Your task to perform on an android device: Open calendar and show me the fourth week of next month Image 0: 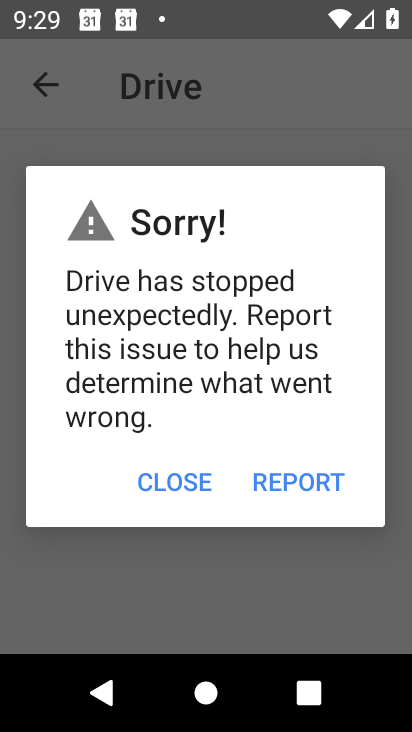
Step 0: press home button
Your task to perform on an android device: Open calendar and show me the fourth week of next month Image 1: 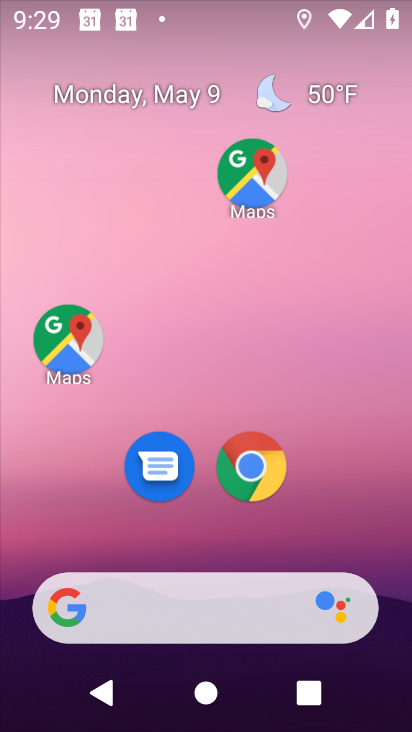
Step 1: drag from (336, 536) to (294, 4)
Your task to perform on an android device: Open calendar and show me the fourth week of next month Image 2: 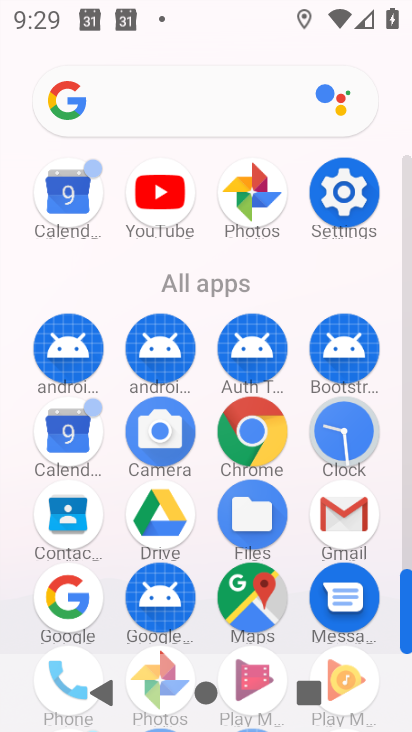
Step 2: click (44, 186)
Your task to perform on an android device: Open calendar and show me the fourth week of next month Image 3: 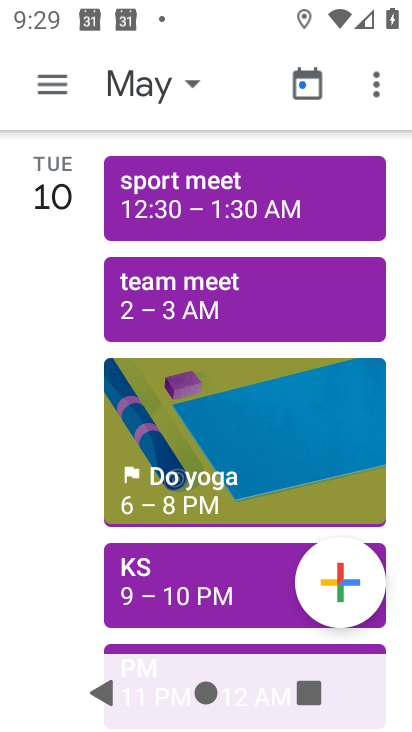
Step 3: click (158, 85)
Your task to perform on an android device: Open calendar and show me the fourth week of next month Image 4: 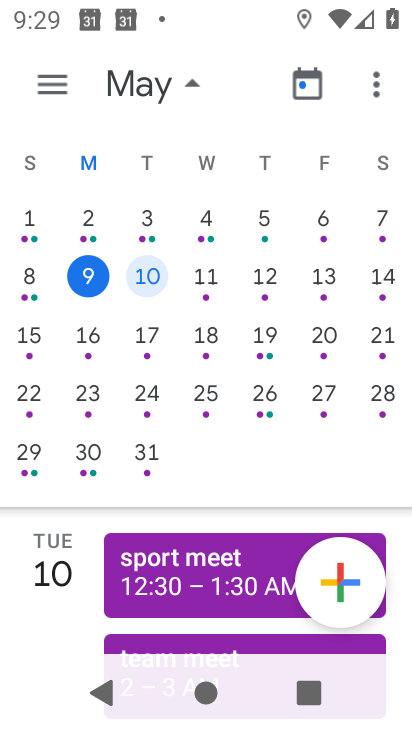
Step 4: drag from (362, 335) to (0, 356)
Your task to perform on an android device: Open calendar and show me the fourth week of next month Image 5: 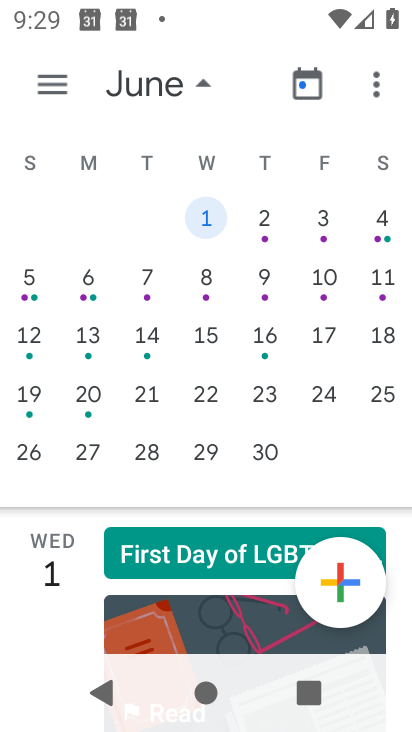
Step 5: click (30, 392)
Your task to perform on an android device: Open calendar and show me the fourth week of next month Image 6: 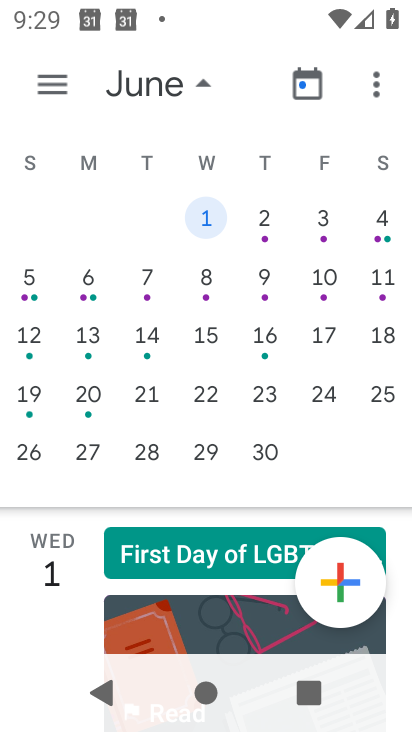
Step 6: click (34, 399)
Your task to perform on an android device: Open calendar and show me the fourth week of next month Image 7: 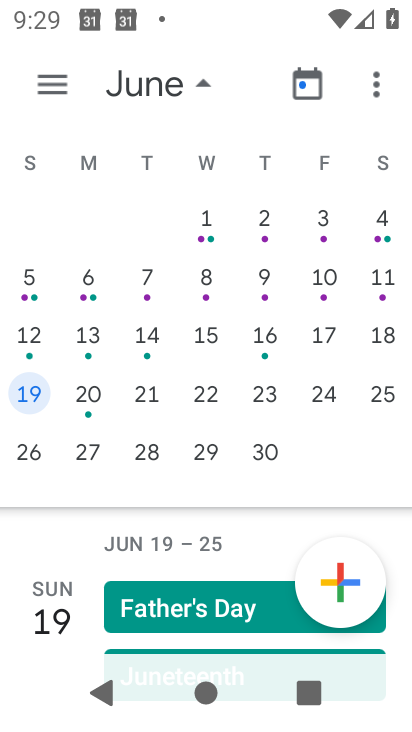
Step 7: task complete